Your task to perform on an android device: Search for pizza restaurants on Maps Image 0: 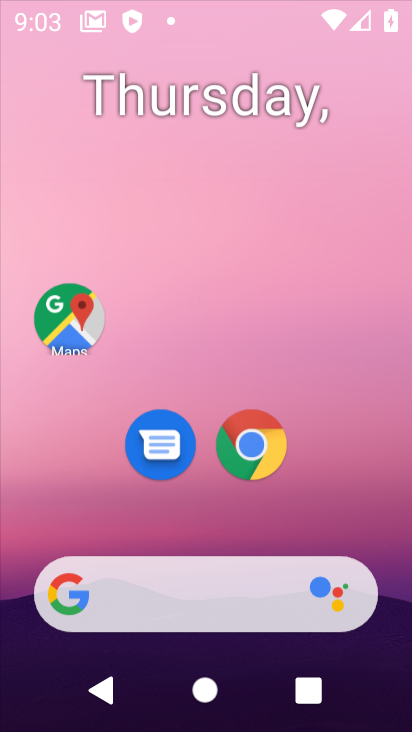
Step 0: drag from (313, 434) to (304, 240)
Your task to perform on an android device: Search for pizza restaurants on Maps Image 1: 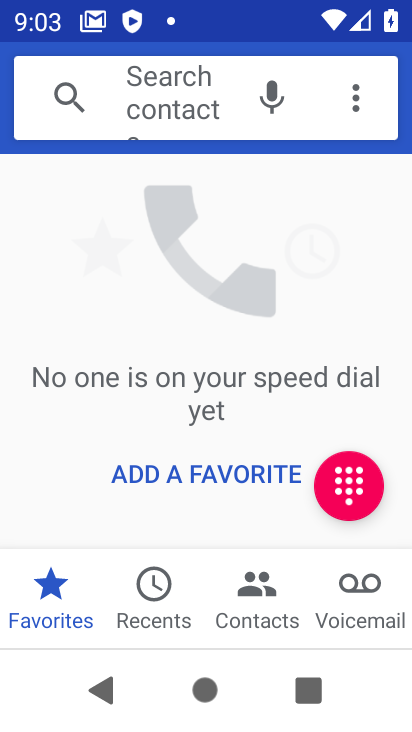
Step 1: press home button
Your task to perform on an android device: Search for pizza restaurants on Maps Image 2: 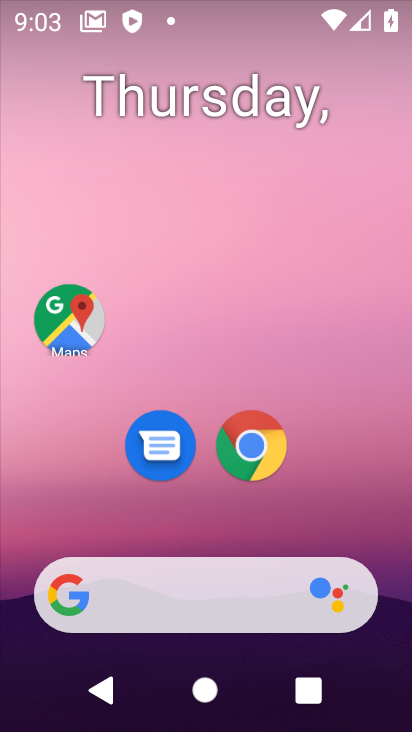
Step 2: click (65, 310)
Your task to perform on an android device: Search for pizza restaurants on Maps Image 3: 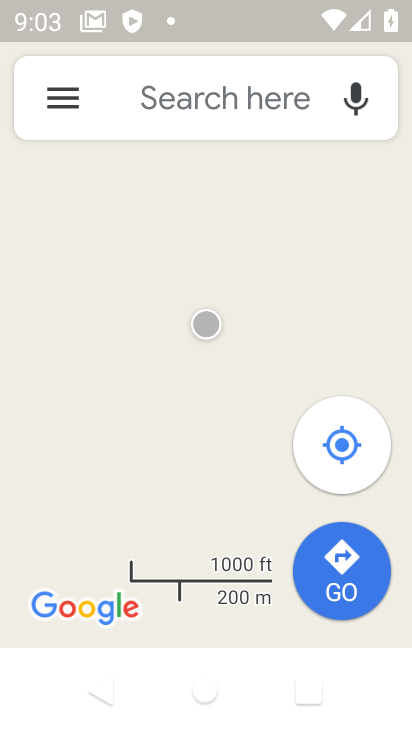
Step 3: click (230, 99)
Your task to perform on an android device: Search for pizza restaurants on Maps Image 4: 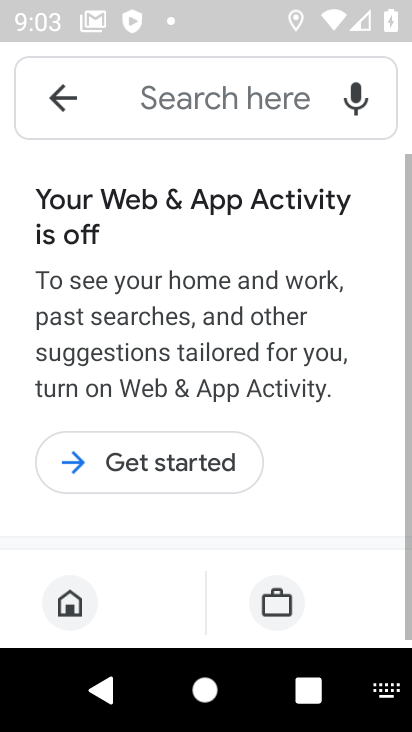
Step 4: click (46, 87)
Your task to perform on an android device: Search for pizza restaurants on Maps Image 5: 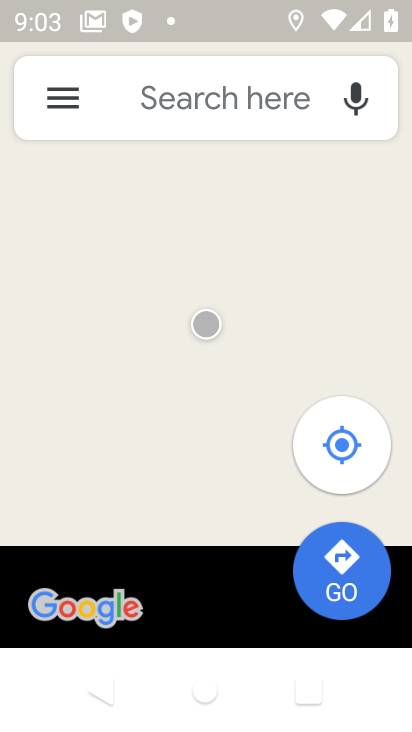
Step 5: click (219, 98)
Your task to perform on an android device: Search for pizza restaurants on Maps Image 6: 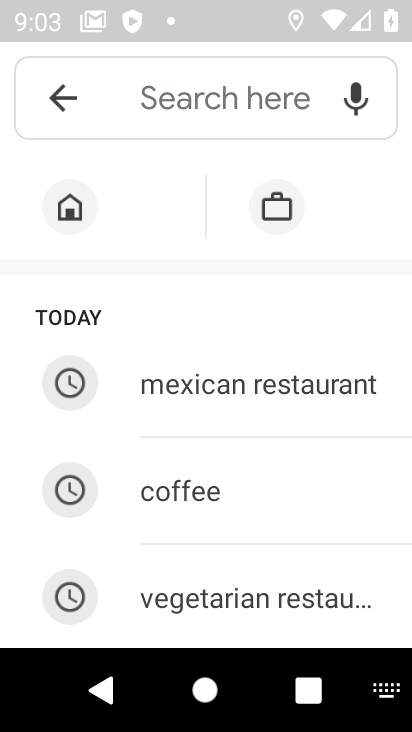
Step 6: drag from (269, 562) to (210, 193)
Your task to perform on an android device: Search for pizza restaurants on Maps Image 7: 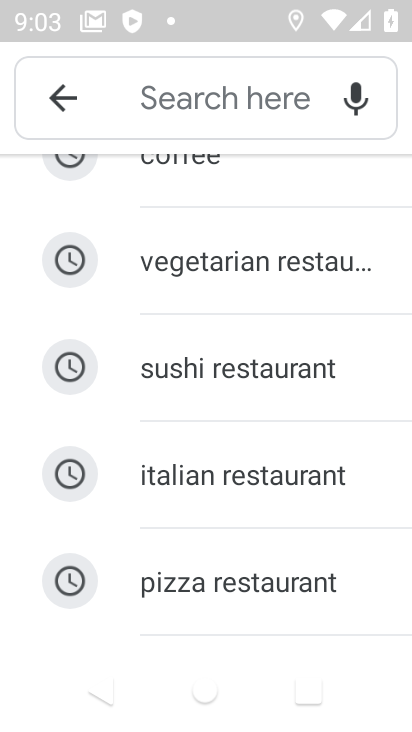
Step 7: click (223, 586)
Your task to perform on an android device: Search for pizza restaurants on Maps Image 8: 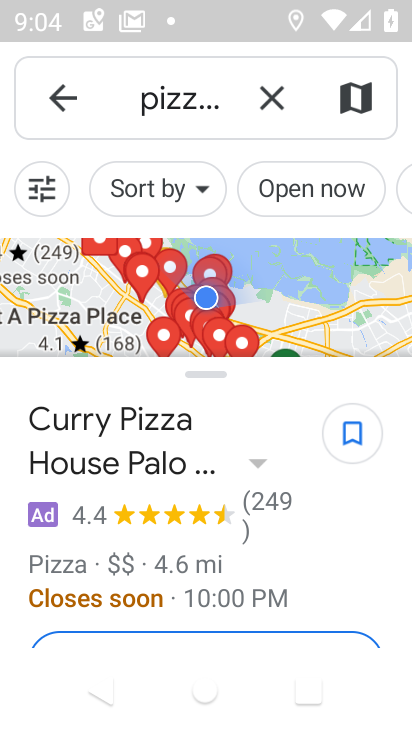
Step 8: task complete